Your task to perform on an android device: open chrome privacy settings Image 0: 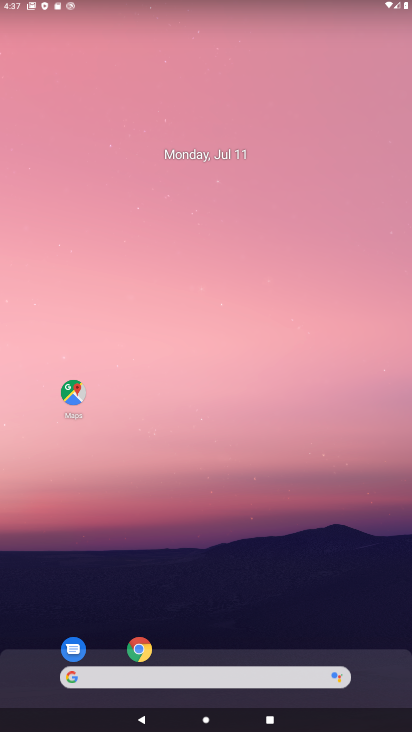
Step 0: drag from (247, 239) to (252, 3)
Your task to perform on an android device: open chrome privacy settings Image 1: 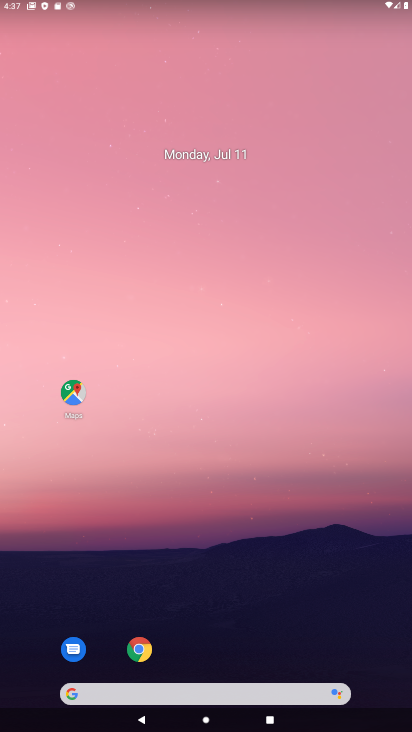
Step 1: drag from (328, 631) to (333, 75)
Your task to perform on an android device: open chrome privacy settings Image 2: 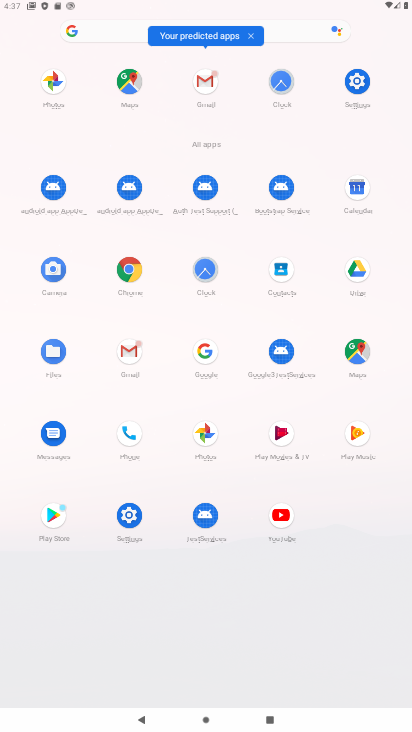
Step 2: click (129, 264)
Your task to perform on an android device: open chrome privacy settings Image 3: 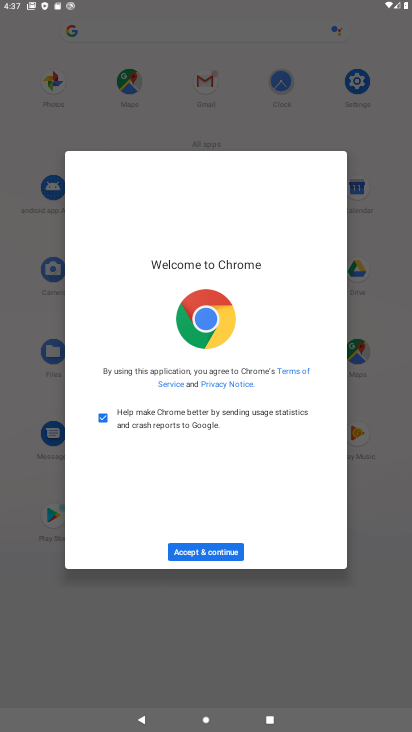
Step 3: click (206, 552)
Your task to perform on an android device: open chrome privacy settings Image 4: 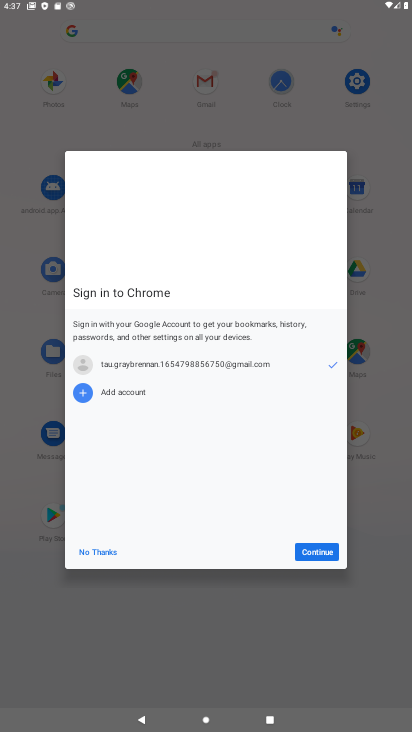
Step 4: click (322, 549)
Your task to perform on an android device: open chrome privacy settings Image 5: 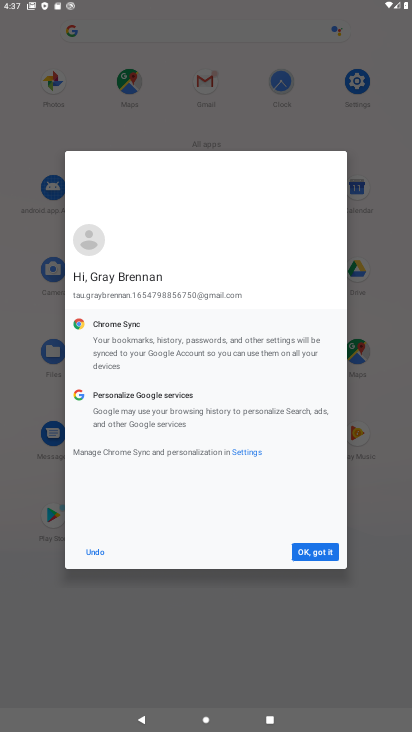
Step 5: click (312, 552)
Your task to perform on an android device: open chrome privacy settings Image 6: 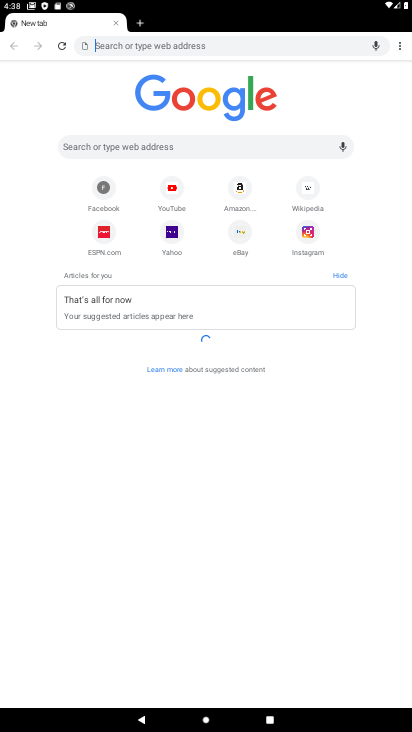
Step 6: drag from (398, 43) to (317, 209)
Your task to perform on an android device: open chrome privacy settings Image 7: 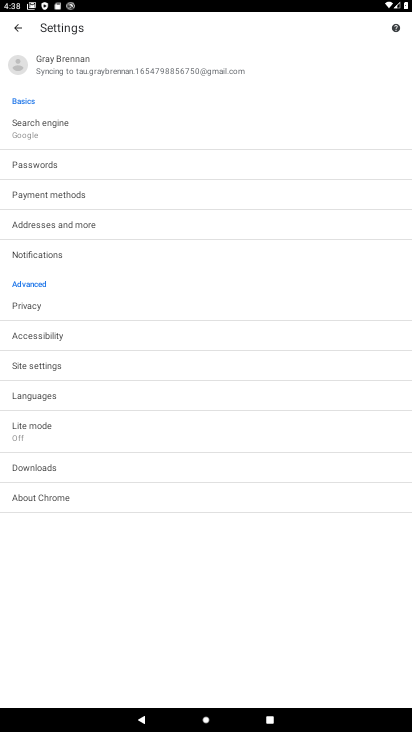
Step 7: click (52, 303)
Your task to perform on an android device: open chrome privacy settings Image 8: 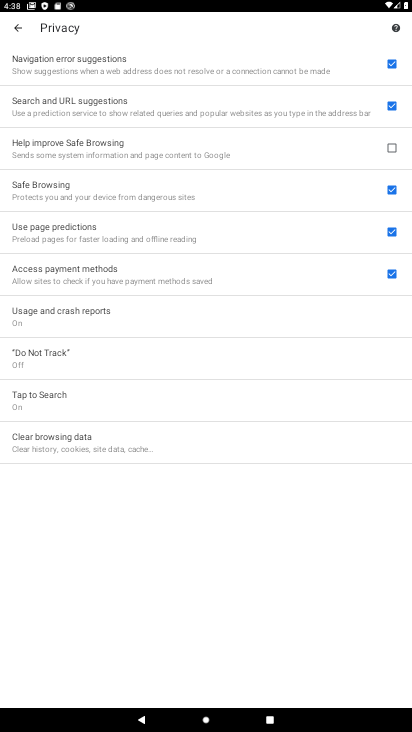
Step 8: task complete